Your task to perform on an android device: all mails in gmail Image 0: 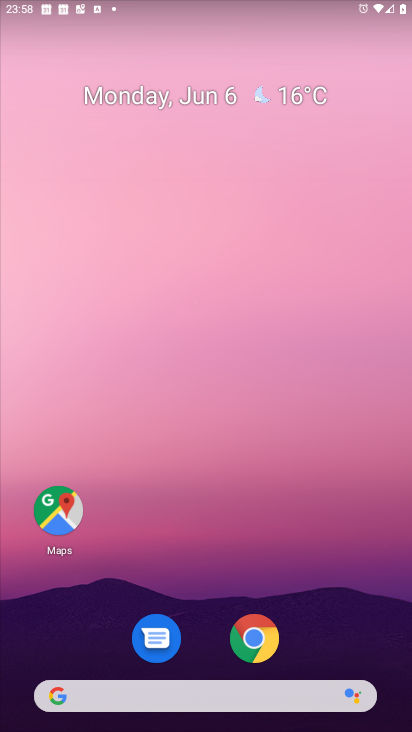
Step 0: drag from (241, 706) to (263, 77)
Your task to perform on an android device: all mails in gmail Image 1: 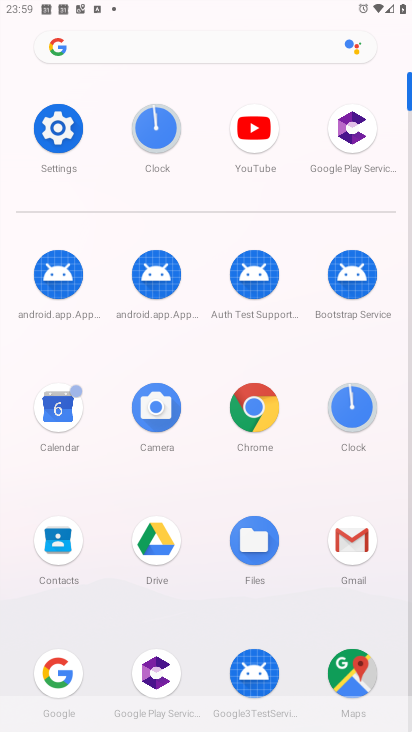
Step 1: click (362, 545)
Your task to perform on an android device: all mails in gmail Image 2: 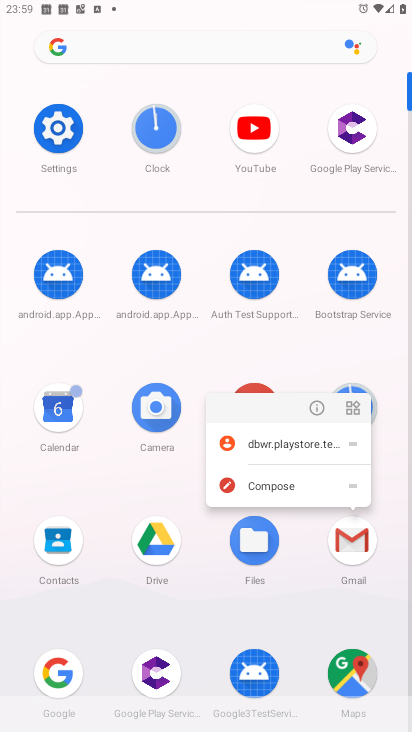
Step 2: click (367, 536)
Your task to perform on an android device: all mails in gmail Image 3: 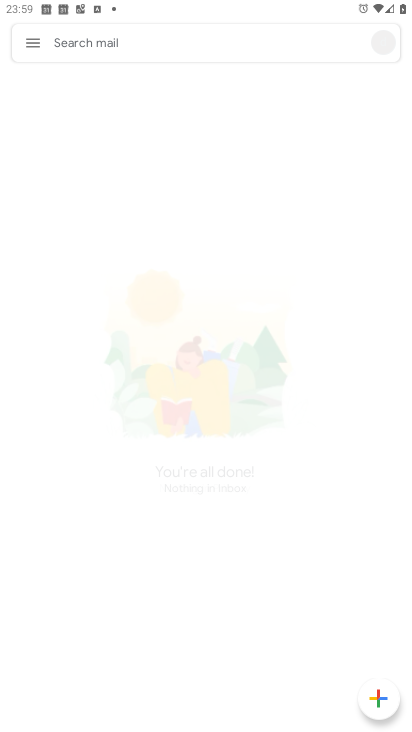
Step 3: click (18, 47)
Your task to perform on an android device: all mails in gmail Image 4: 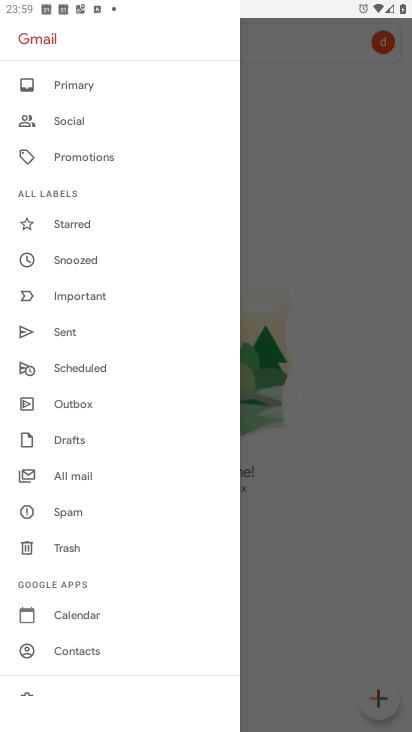
Step 4: click (62, 473)
Your task to perform on an android device: all mails in gmail Image 5: 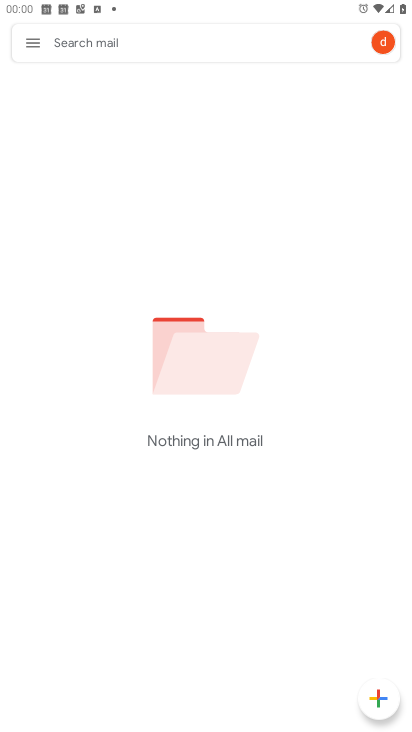
Step 5: task complete